Your task to perform on an android device: Open ESPN.com Image 0: 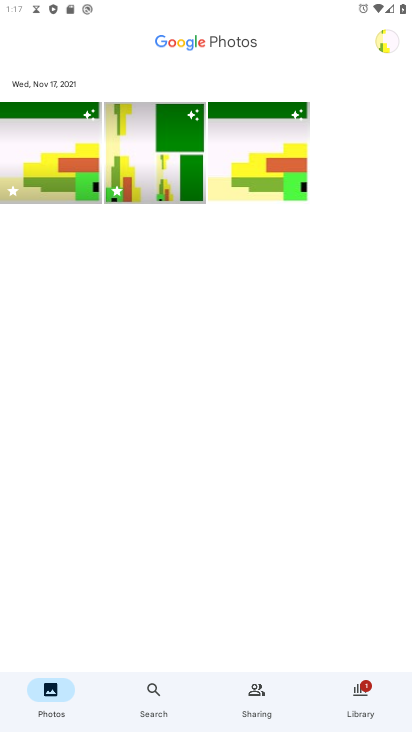
Step 0: press home button
Your task to perform on an android device: Open ESPN.com Image 1: 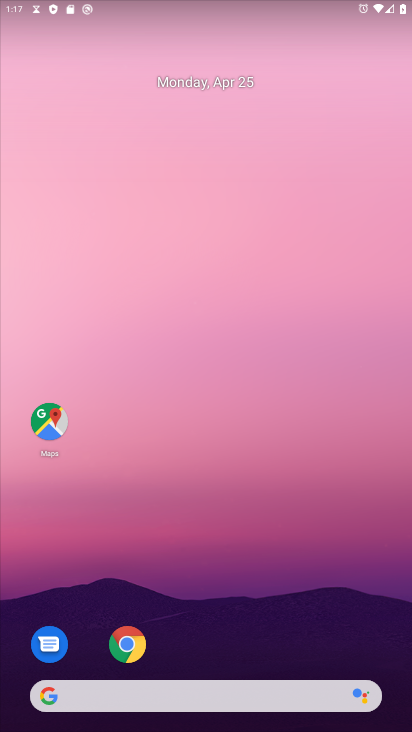
Step 1: click (127, 647)
Your task to perform on an android device: Open ESPN.com Image 2: 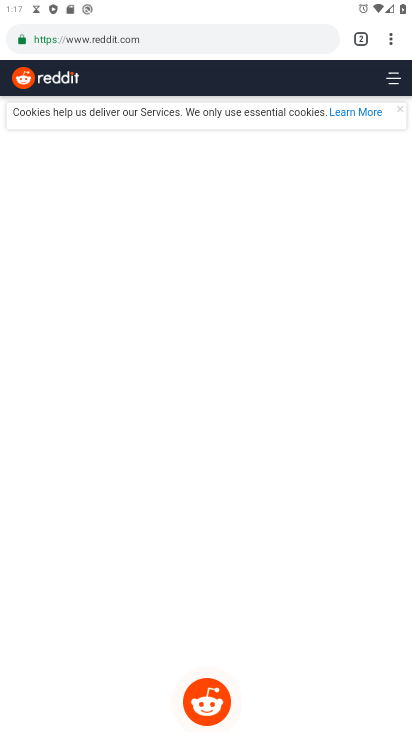
Step 2: click (112, 46)
Your task to perform on an android device: Open ESPN.com Image 3: 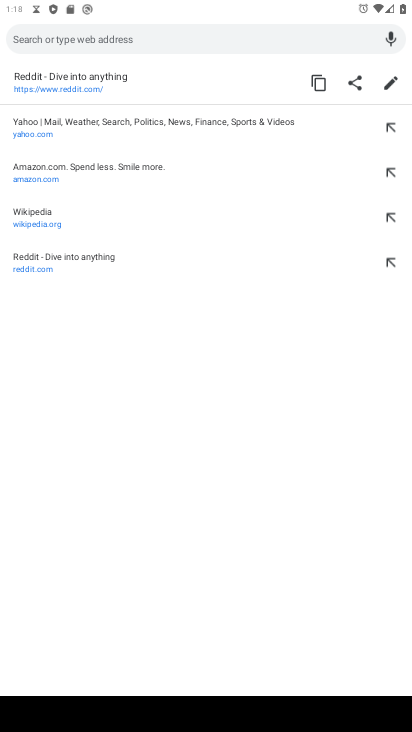
Step 3: type "espn.com"
Your task to perform on an android device: Open ESPN.com Image 4: 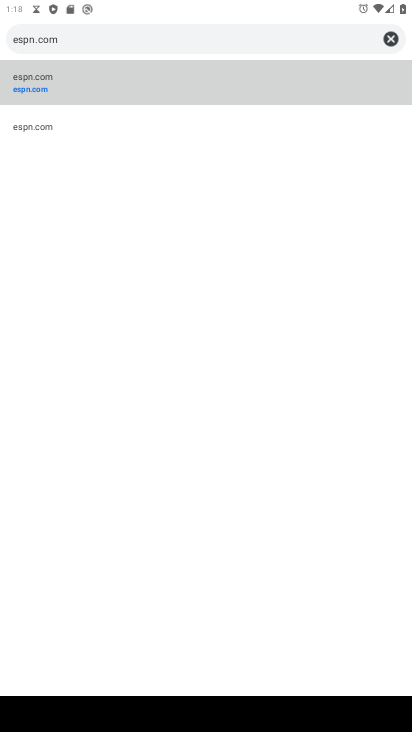
Step 4: click (27, 83)
Your task to perform on an android device: Open ESPN.com Image 5: 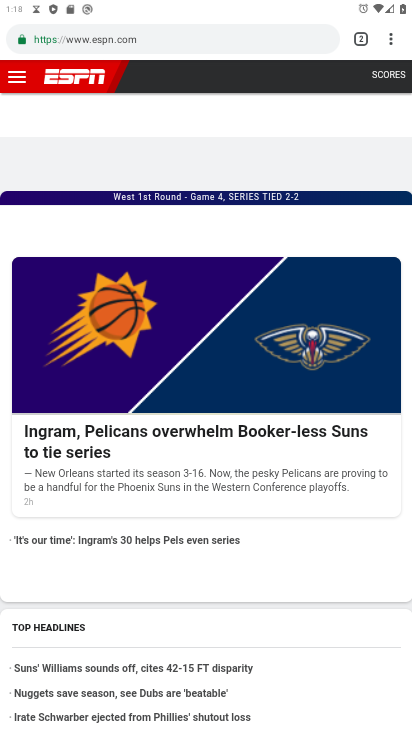
Step 5: task complete